Your task to perform on an android device: Go to notification settings Image 0: 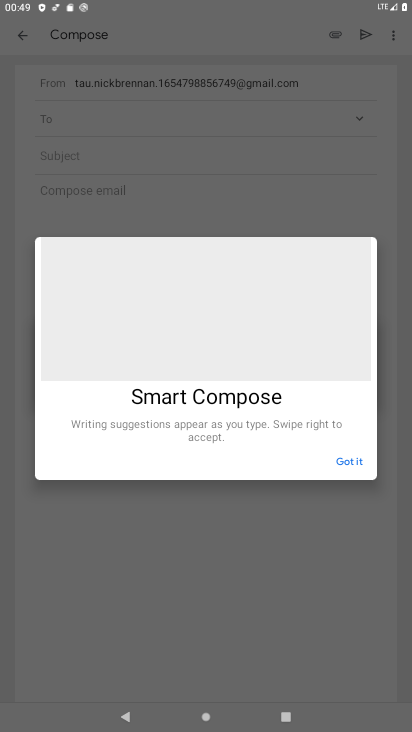
Step 0: press home button
Your task to perform on an android device: Go to notification settings Image 1: 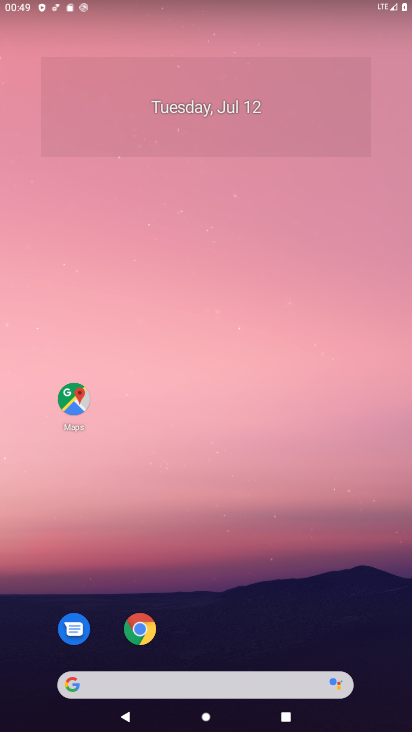
Step 1: drag from (40, 702) to (404, 713)
Your task to perform on an android device: Go to notification settings Image 2: 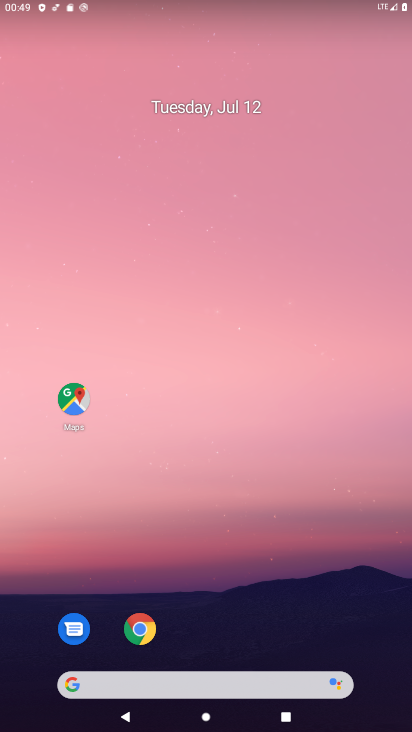
Step 2: click (200, 655)
Your task to perform on an android device: Go to notification settings Image 3: 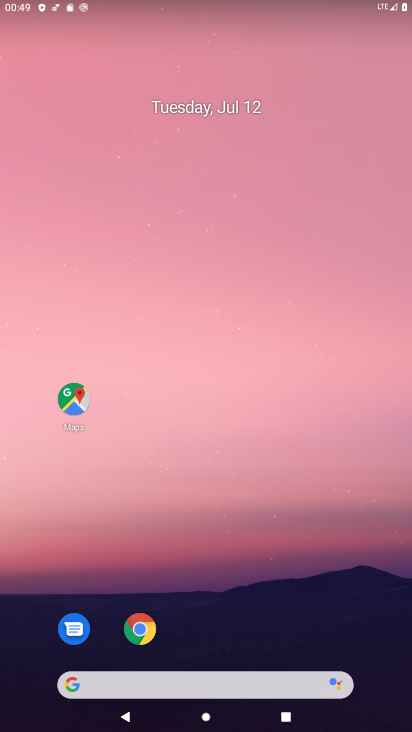
Step 3: drag from (293, 68) to (206, 1)
Your task to perform on an android device: Go to notification settings Image 4: 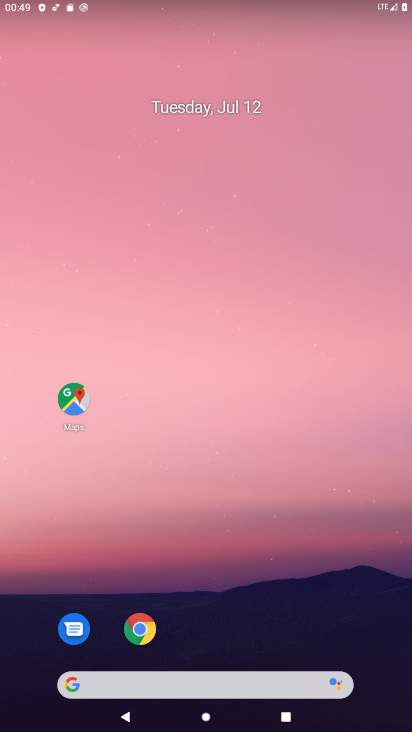
Step 4: click (401, 1)
Your task to perform on an android device: Go to notification settings Image 5: 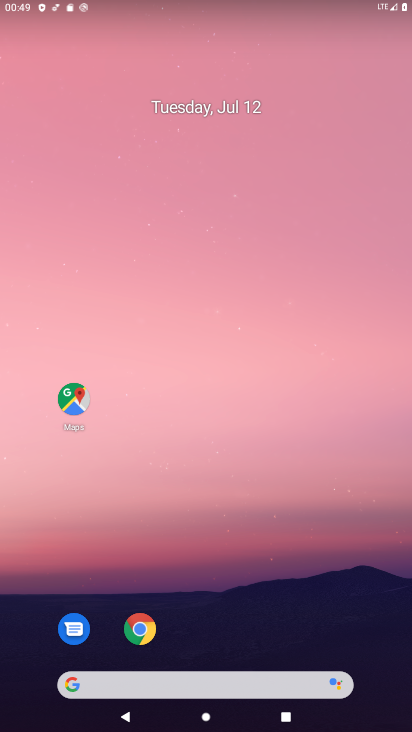
Step 5: drag from (22, 720) to (201, 93)
Your task to perform on an android device: Go to notification settings Image 6: 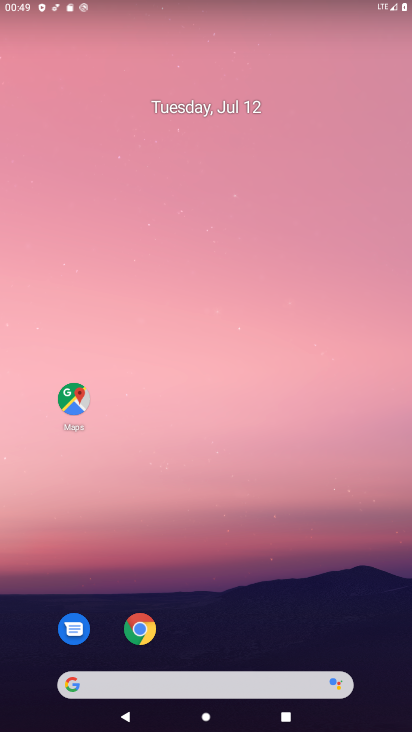
Step 6: drag from (38, 720) to (323, 40)
Your task to perform on an android device: Go to notification settings Image 7: 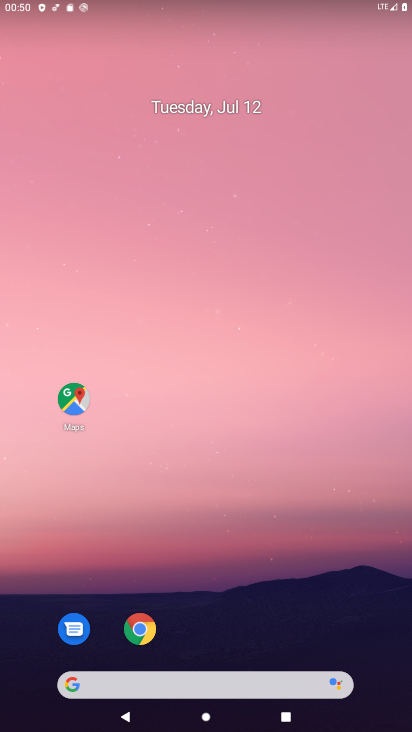
Step 7: drag from (39, 696) to (208, 42)
Your task to perform on an android device: Go to notification settings Image 8: 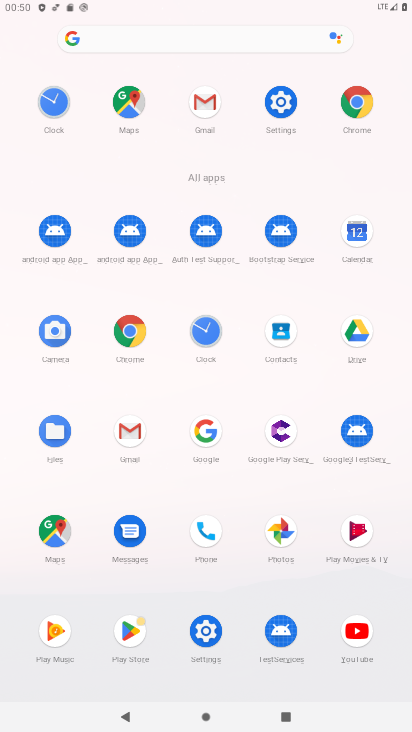
Step 8: click (216, 627)
Your task to perform on an android device: Go to notification settings Image 9: 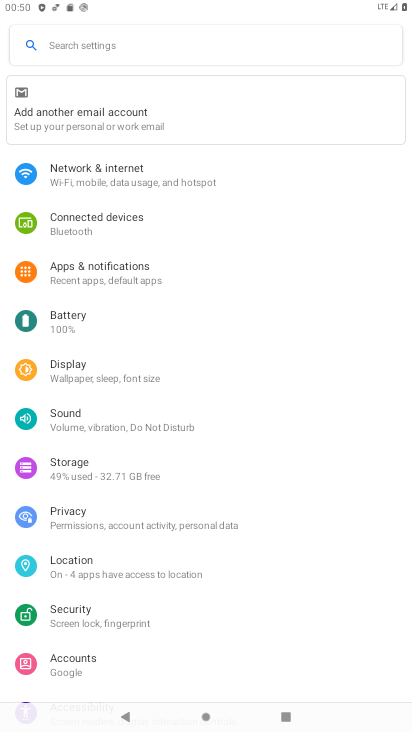
Step 9: task complete